Your task to perform on an android device: change the clock style Image 0: 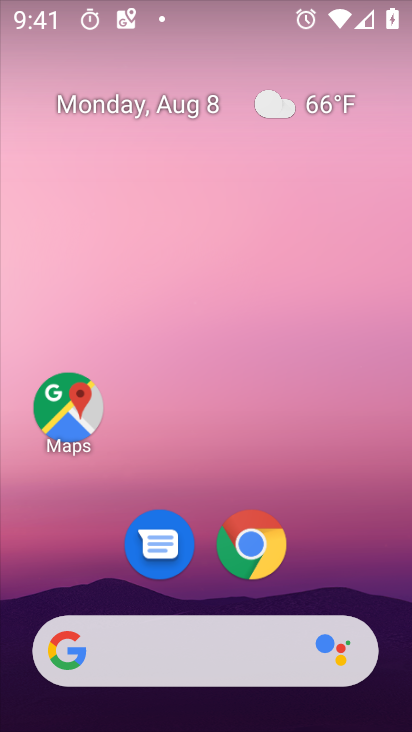
Step 0: drag from (317, 593) to (345, 32)
Your task to perform on an android device: change the clock style Image 1: 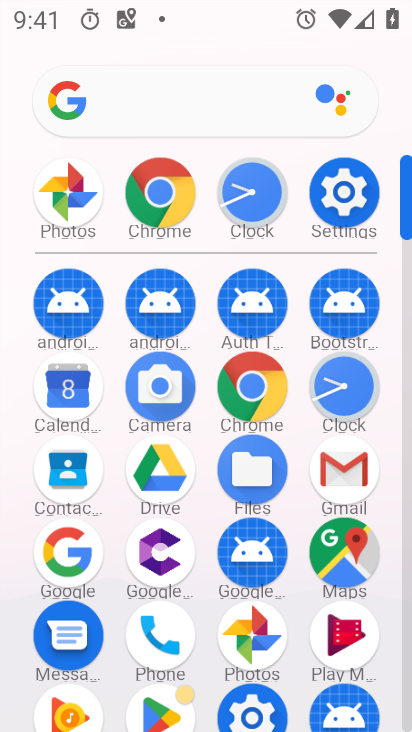
Step 1: click (246, 185)
Your task to perform on an android device: change the clock style Image 2: 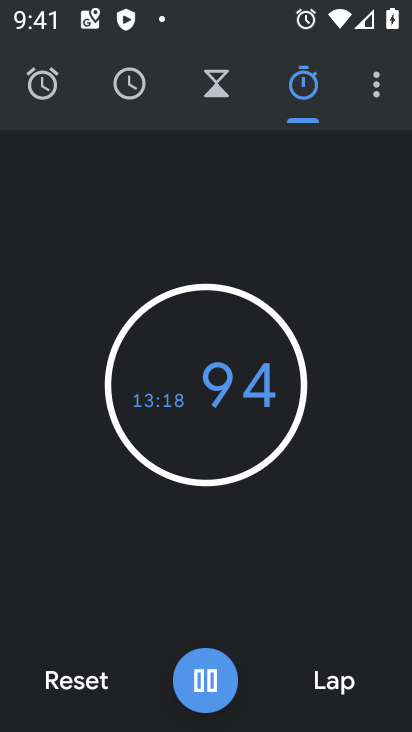
Step 2: click (376, 81)
Your task to perform on an android device: change the clock style Image 3: 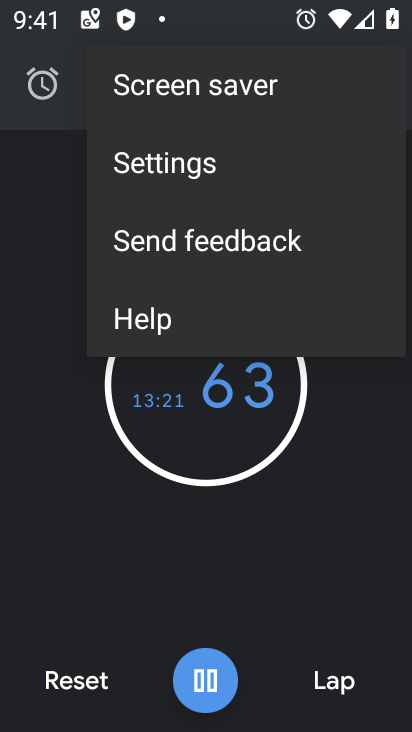
Step 3: click (230, 166)
Your task to perform on an android device: change the clock style Image 4: 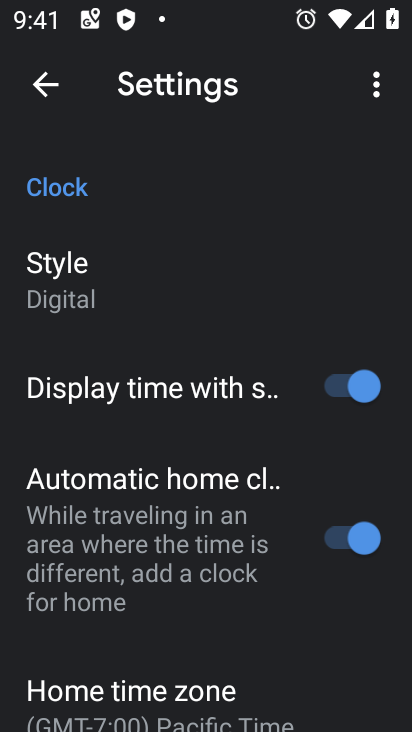
Step 4: click (108, 287)
Your task to perform on an android device: change the clock style Image 5: 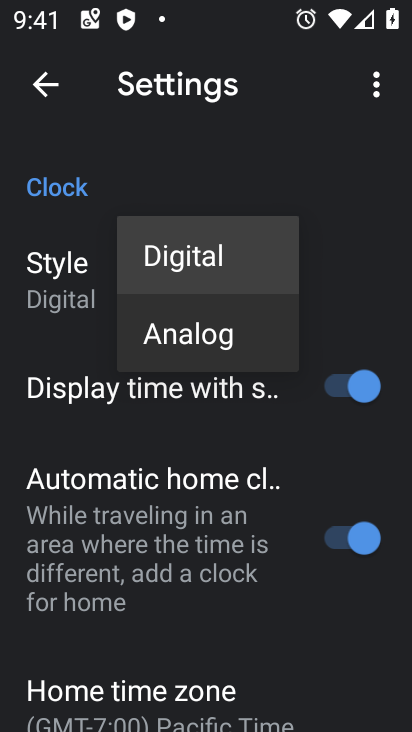
Step 5: click (248, 329)
Your task to perform on an android device: change the clock style Image 6: 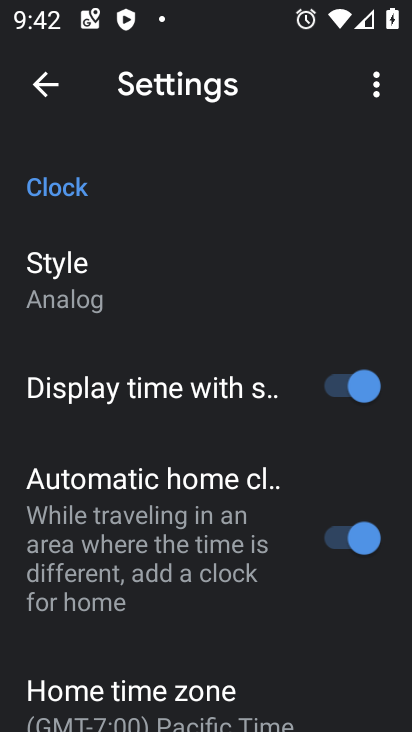
Step 6: task complete